Your task to perform on an android device: Open calendar and show me the fourth week of next month Image 0: 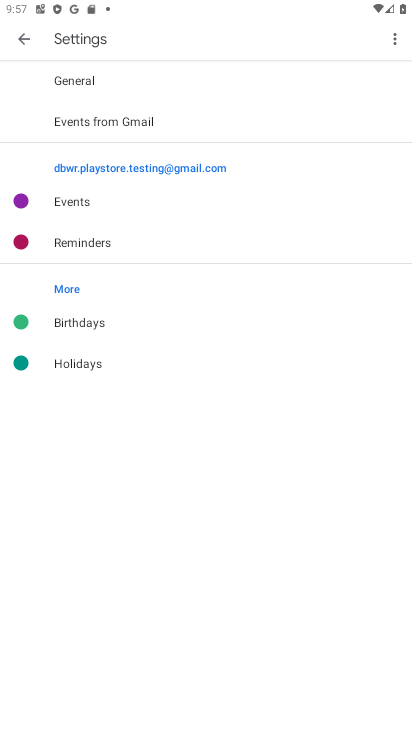
Step 0: press home button
Your task to perform on an android device: Open calendar and show me the fourth week of next month Image 1: 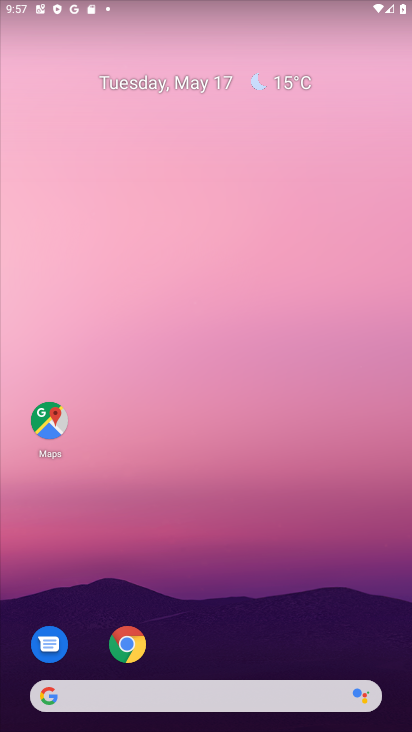
Step 1: click (138, 84)
Your task to perform on an android device: Open calendar and show me the fourth week of next month Image 2: 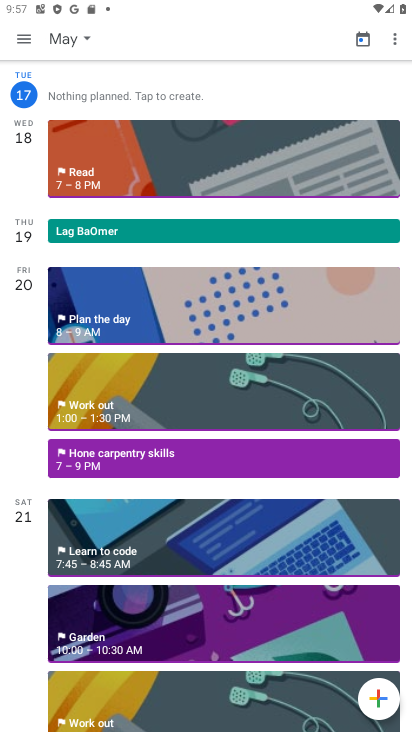
Step 2: click (63, 46)
Your task to perform on an android device: Open calendar and show me the fourth week of next month Image 3: 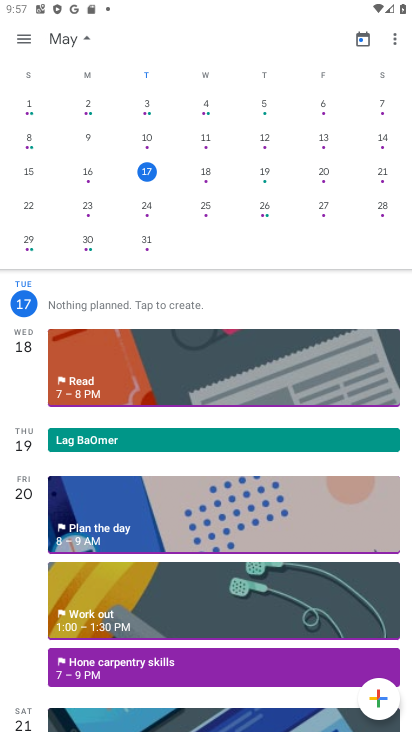
Step 3: drag from (358, 255) to (14, 199)
Your task to perform on an android device: Open calendar and show me the fourth week of next month Image 4: 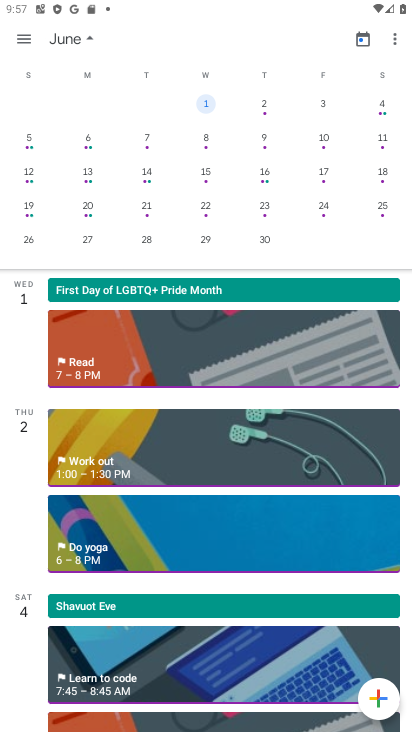
Step 4: click (383, 108)
Your task to perform on an android device: Open calendar and show me the fourth week of next month Image 5: 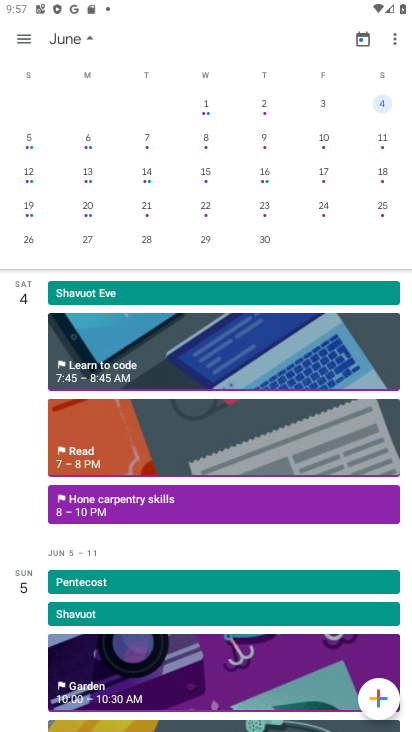
Step 5: click (263, 212)
Your task to perform on an android device: Open calendar and show me the fourth week of next month Image 6: 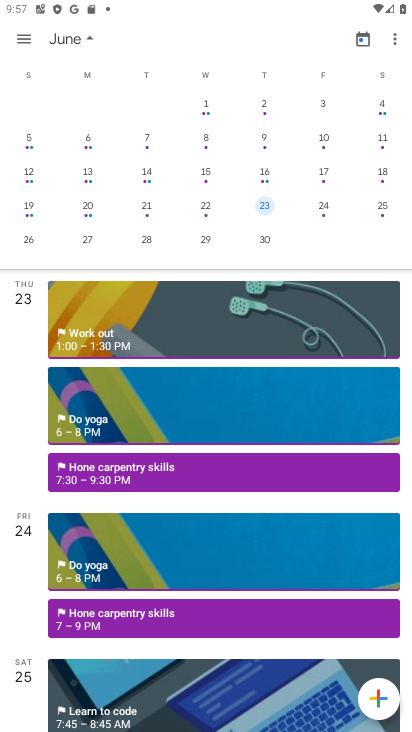
Step 6: task complete